Your task to perform on an android device: see creations saved in the google photos Image 0: 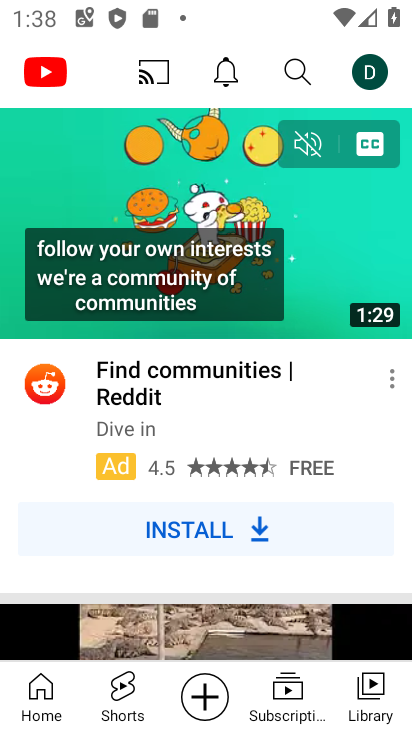
Step 0: press home button
Your task to perform on an android device: see creations saved in the google photos Image 1: 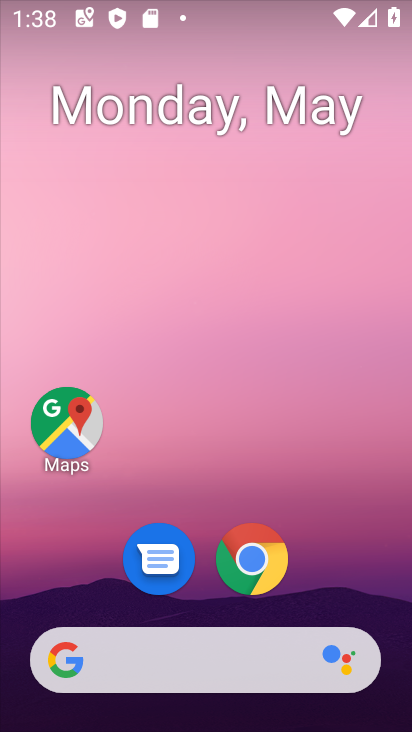
Step 1: drag from (281, 716) to (298, 1)
Your task to perform on an android device: see creations saved in the google photos Image 2: 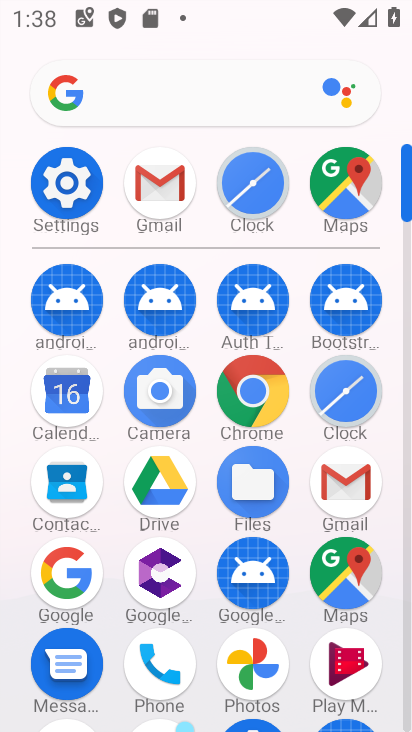
Step 2: click (243, 644)
Your task to perform on an android device: see creations saved in the google photos Image 3: 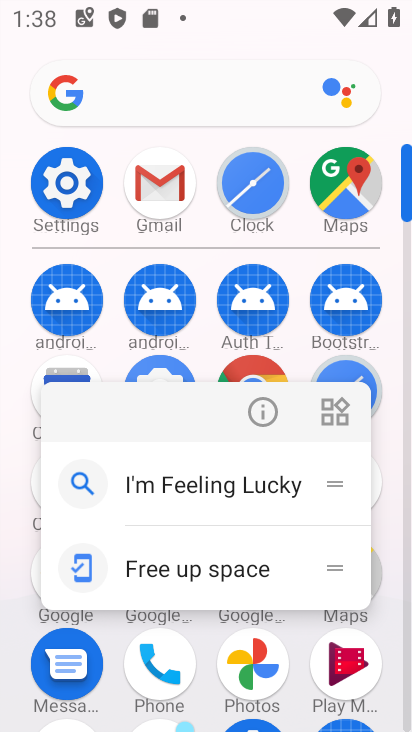
Step 3: click (243, 644)
Your task to perform on an android device: see creations saved in the google photos Image 4: 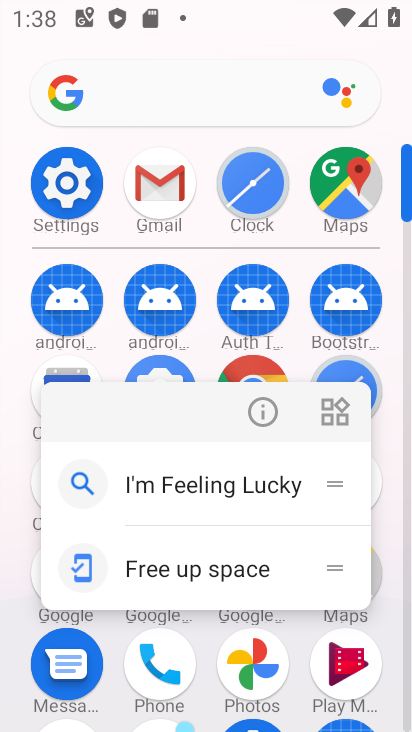
Step 4: click (243, 644)
Your task to perform on an android device: see creations saved in the google photos Image 5: 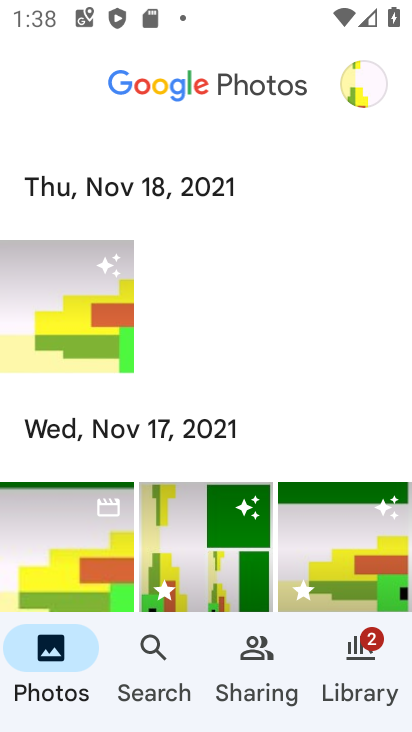
Step 5: click (161, 655)
Your task to perform on an android device: see creations saved in the google photos Image 6: 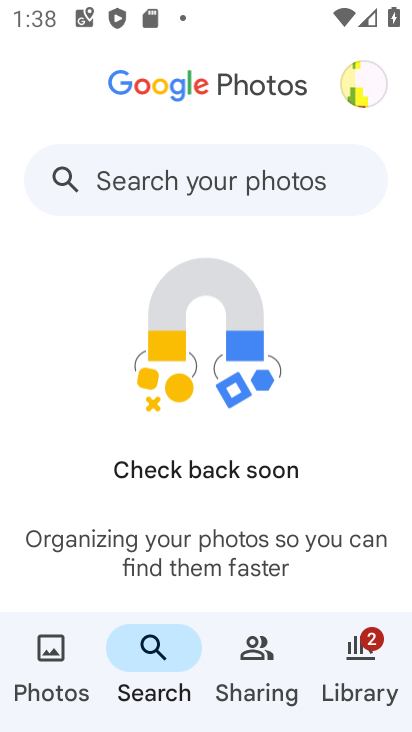
Step 6: click (190, 181)
Your task to perform on an android device: see creations saved in the google photos Image 7: 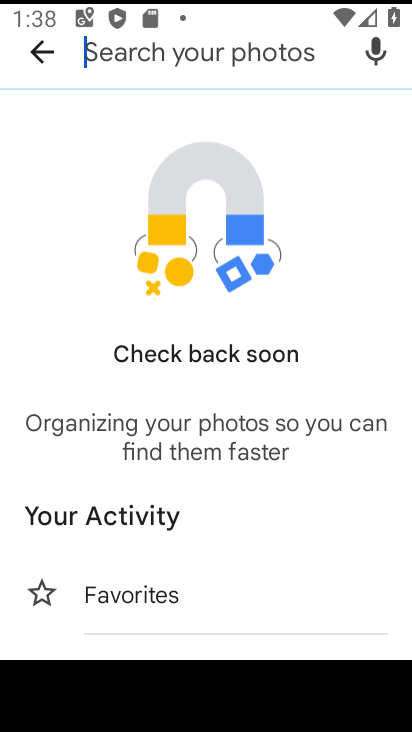
Step 7: drag from (235, 624) to (279, 29)
Your task to perform on an android device: see creations saved in the google photos Image 8: 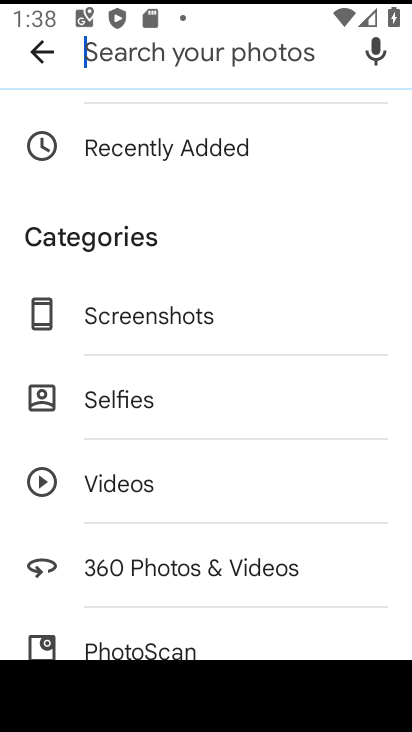
Step 8: drag from (165, 543) to (208, 84)
Your task to perform on an android device: see creations saved in the google photos Image 9: 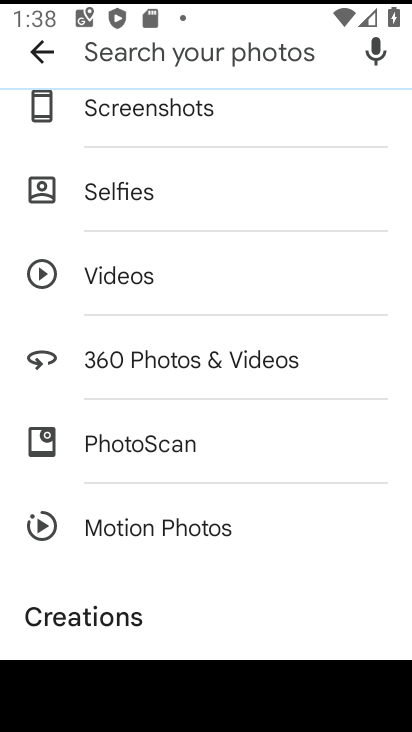
Step 9: drag from (113, 613) to (144, 156)
Your task to perform on an android device: see creations saved in the google photos Image 10: 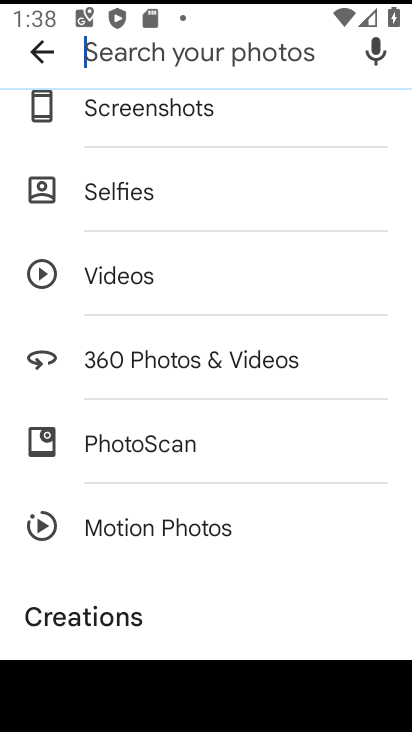
Step 10: click (62, 617)
Your task to perform on an android device: see creations saved in the google photos Image 11: 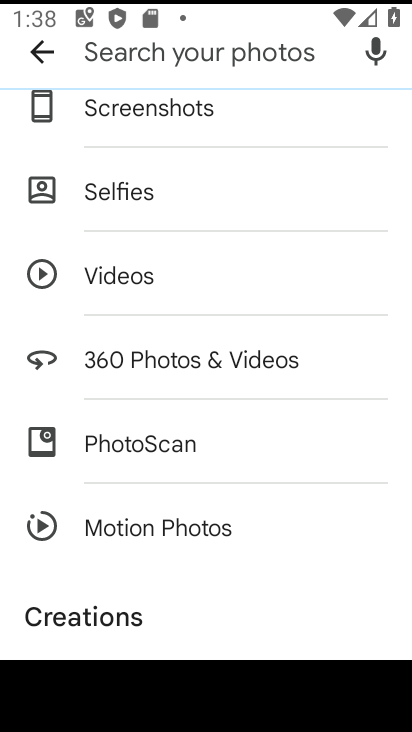
Step 11: click (62, 617)
Your task to perform on an android device: see creations saved in the google photos Image 12: 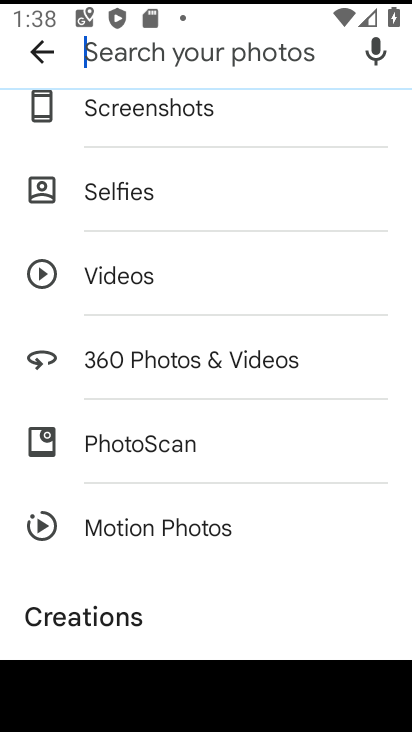
Step 12: click (62, 617)
Your task to perform on an android device: see creations saved in the google photos Image 13: 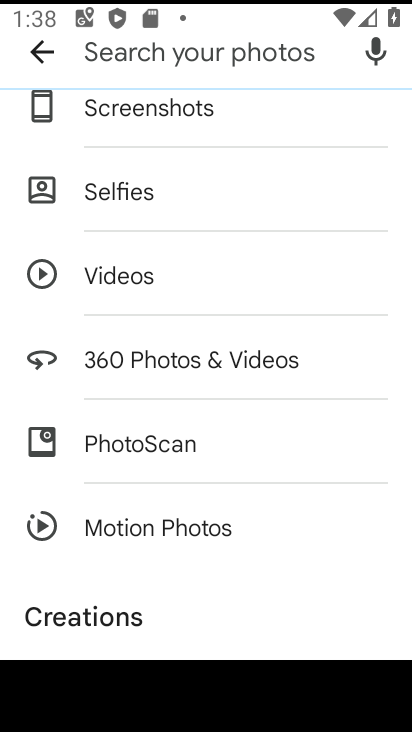
Step 13: click (62, 617)
Your task to perform on an android device: see creations saved in the google photos Image 14: 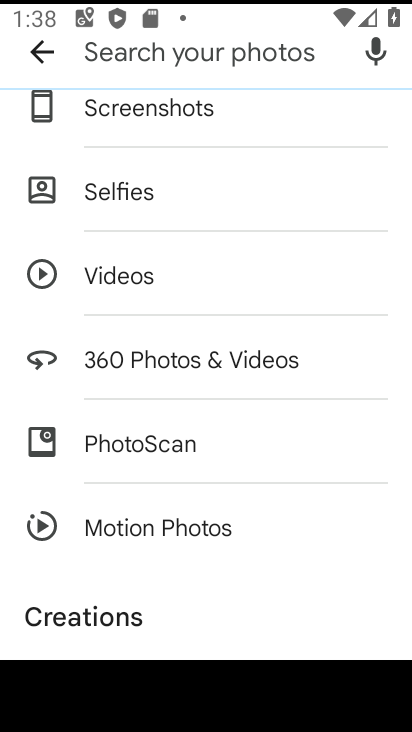
Step 14: click (47, 627)
Your task to perform on an android device: see creations saved in the google photos Image 15: 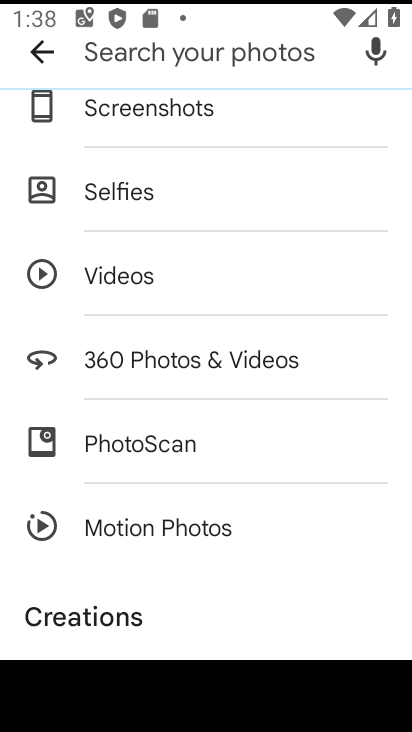
Step 15: task complete